Your task to perform on an android device: change the clock display to digital Image 0: 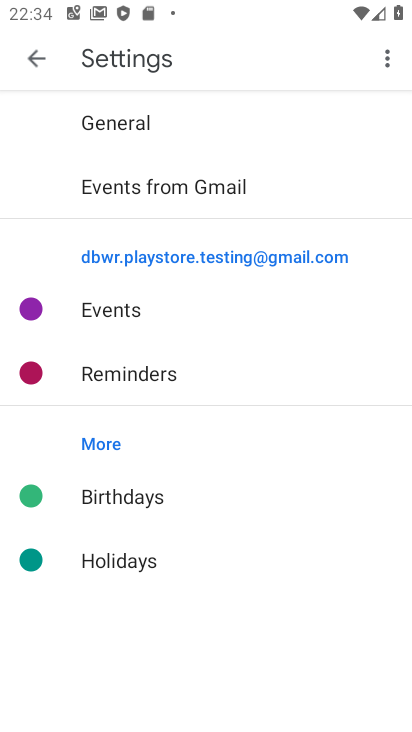
Step 0: press home button
Your task to perform on an android device: change the clock display to digital Image 1: 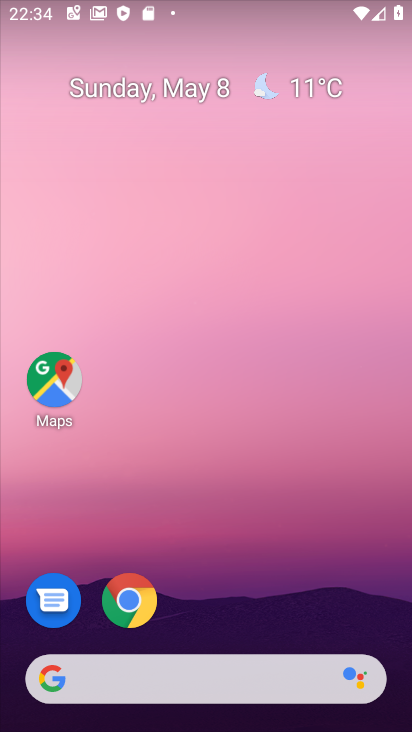
Step 1: drag from (223, 646) to (319, 215)
Your task to perform on an android device: change the clock display to digital Image 2: 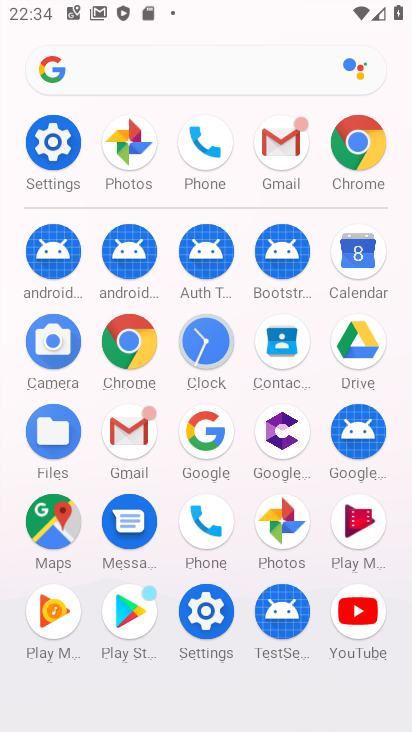
Step 2: click (200, 344)
Your task to perform on an android device: change the clock display to digital Image 3: 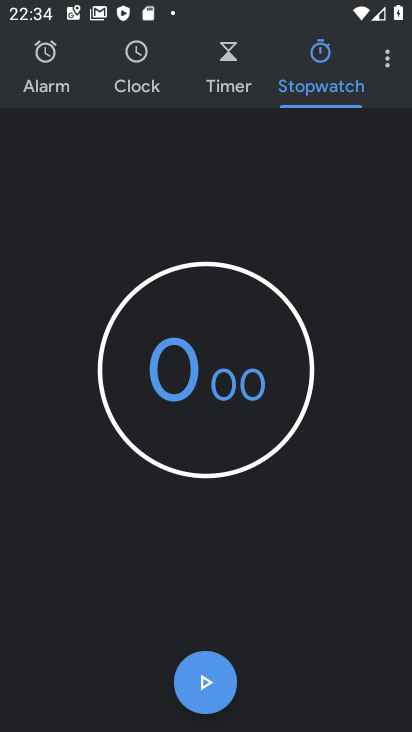
Step 3: click (375, 59)
Your task to perform on an android device: change the clock display to digital Image 4: 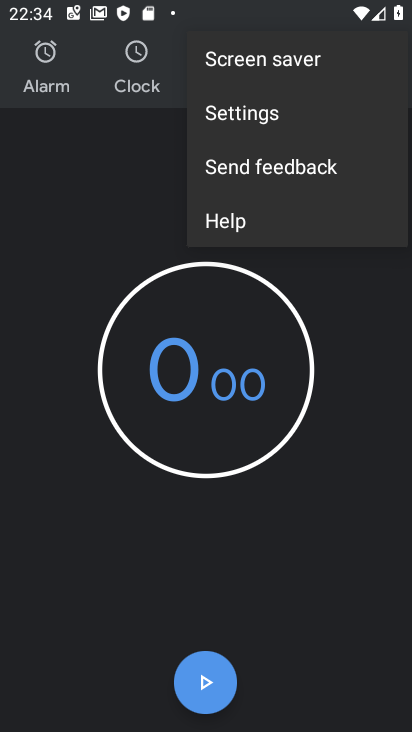
Step 4: click (261, 116)
Your task to perform on an android device: change the clock display to digital Image 5: 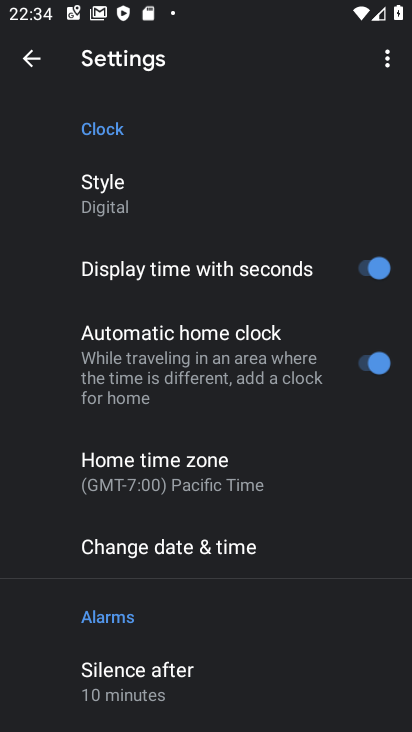
Step 5: task complete